Your task to perform on an android device: toggle location history Image 0: 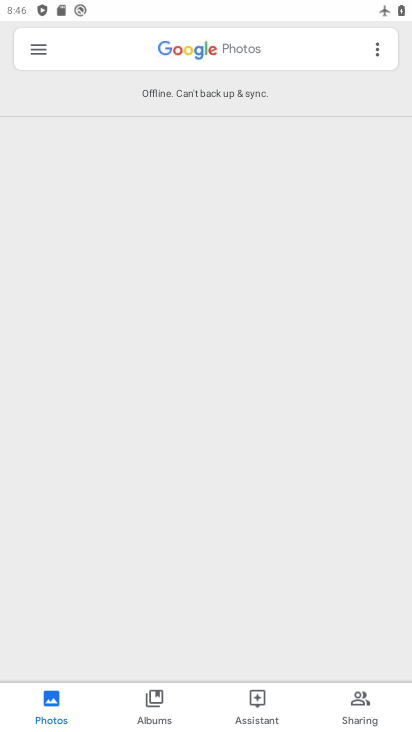
Step 0: press home button
Your task to perform on an android device: toggle location history Image 1: 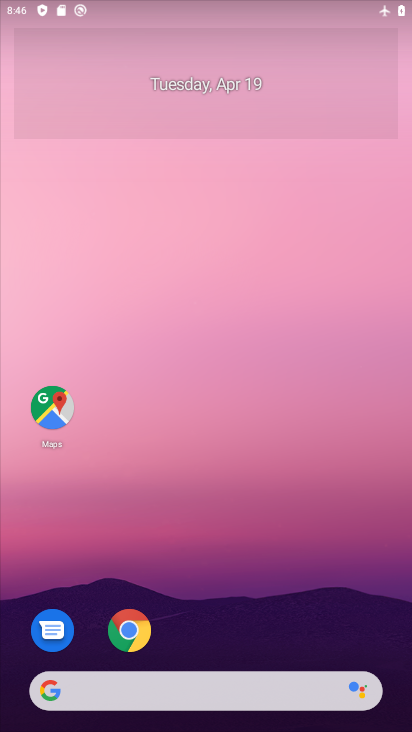
Step 1: drag from (285, 597) to (273, 11)
Your task to perform on an android device: toggle location history Image 2: 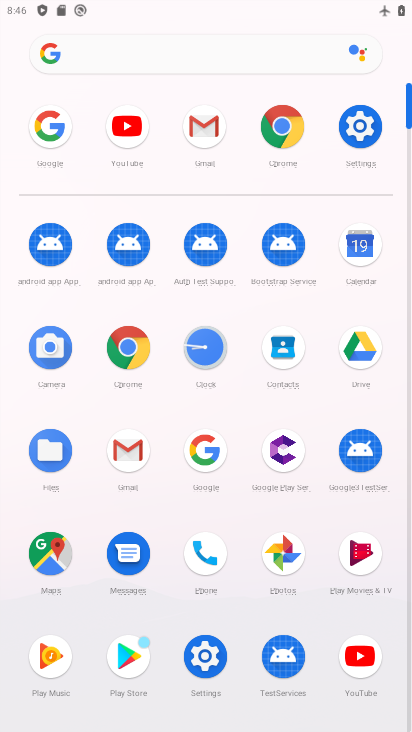
Step 2: click (365, 127)
Your task to perform on an android device: toggle location history Image 3: 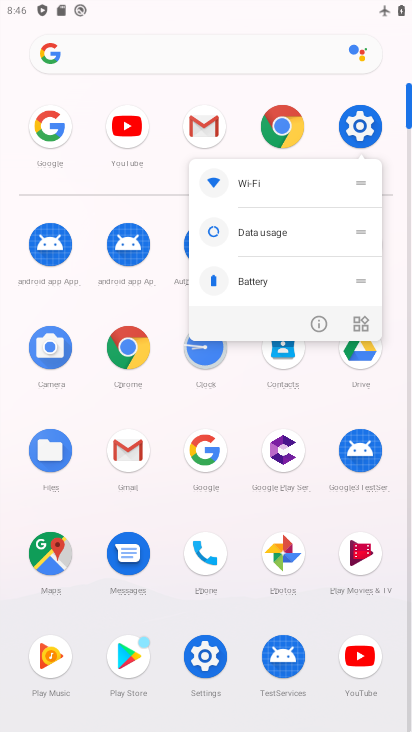
Step 3: click (360, 200)
Your task to perform on an android device: toggle location history Image 4: 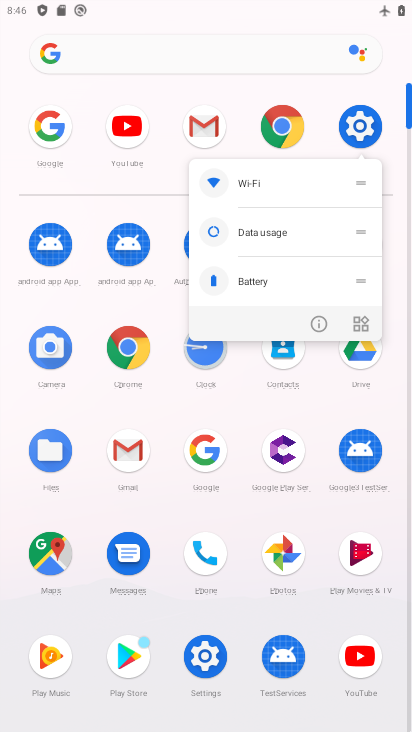
Step 4: click (365, 133)
Your task to perform on an android device: toggle location history Image 5: 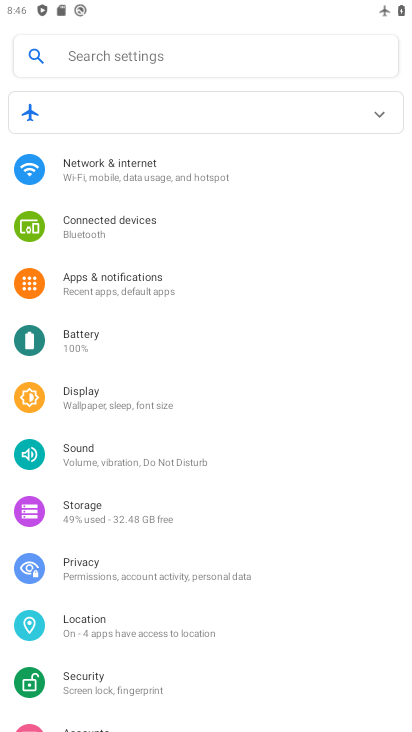
Step 5: click (133, 635)
Your task to perform on an android device: toggle location history Image 6: 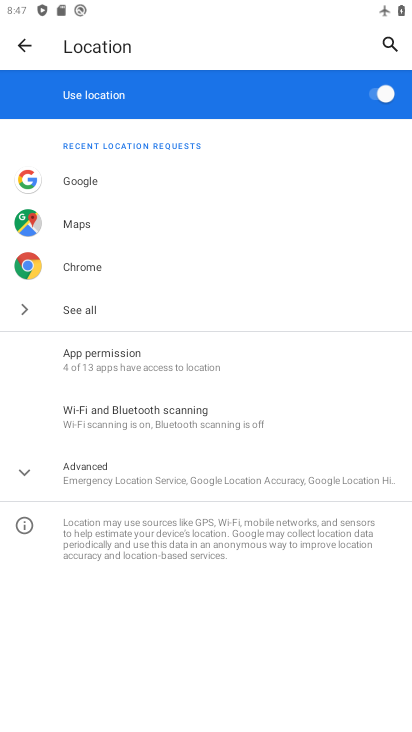
Step 6: click (219, 476)
Your task to perform on an android device: toggle location history Image 7: 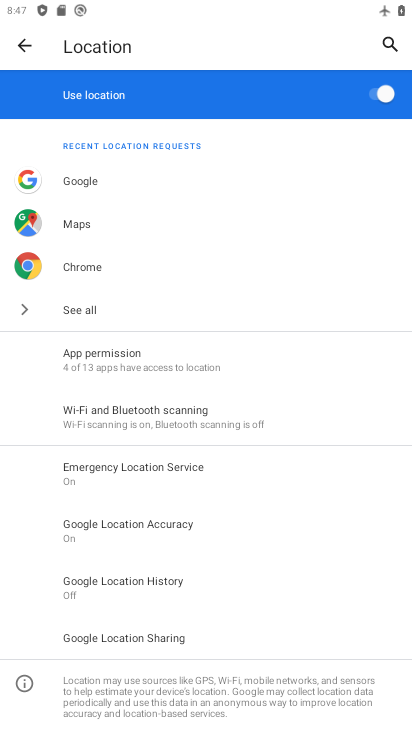
Step 7: drag from (194, 611) to (205, 387)
Your task to perform on an android device: toggle location history Image 8: 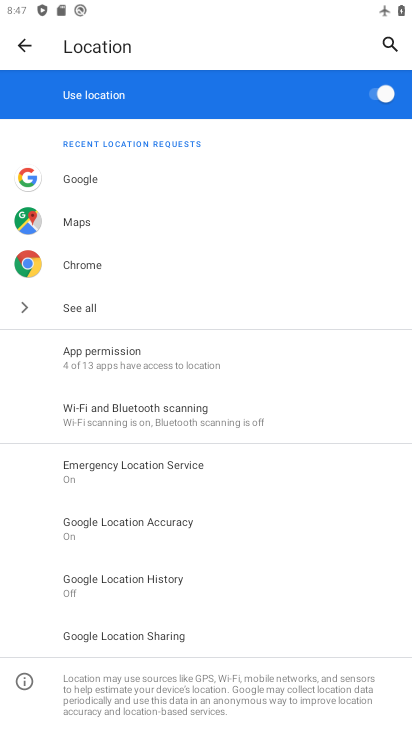
Step 8: click (147, 592)
Your task to perform on an android device: toggle location history Image 9: 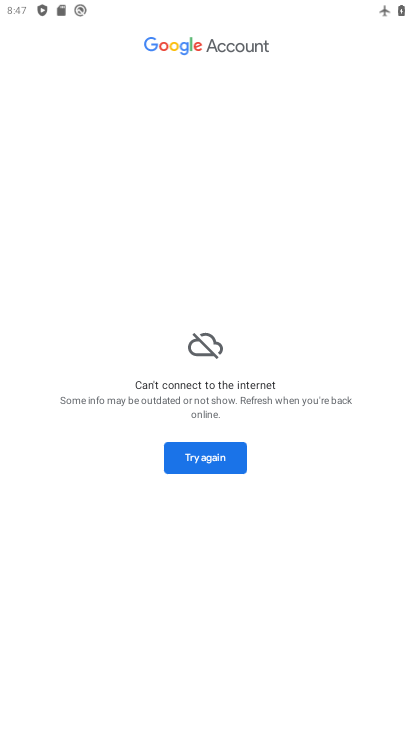
Step 9: task complete